Your task to perform on an android device: What's the weather today? Image 0: 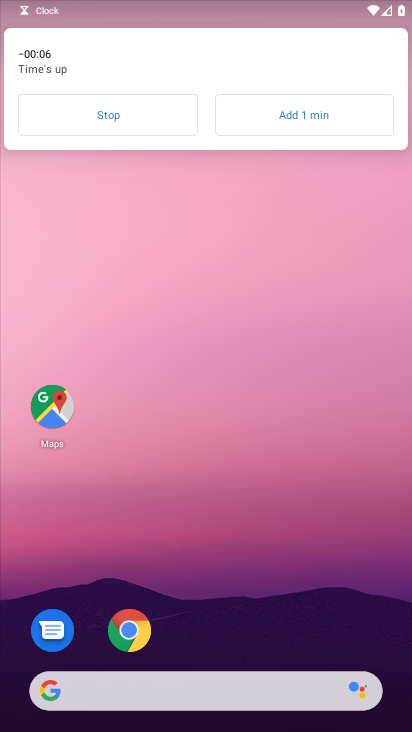
Step 0: click (111, 689)
Your task to perform on an android device: What's the weather today? Image 1: 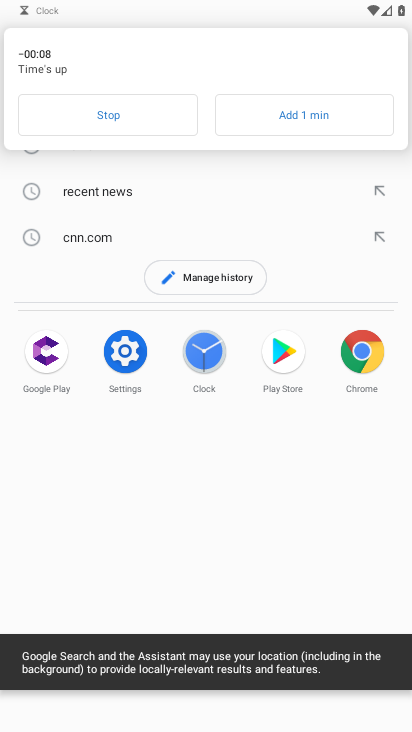
Step 1: click (157, 116)
Your task to perform on an android device: What's the weather today? Image 2: 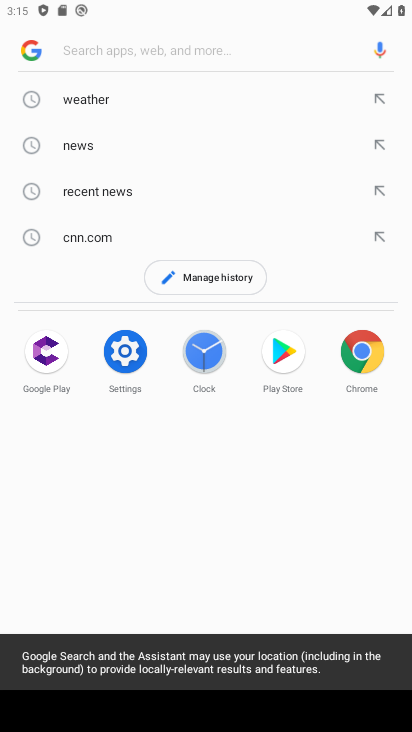
Step 2: click (125, 108)
Your task to perform on an android device: What's the weather today? Image 3: 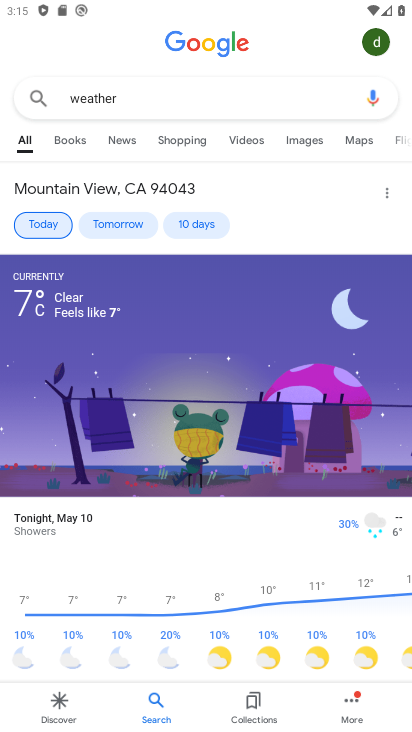
Step 3: task complete